Your task to perform on an android device: empty trash in google photos Image 0: 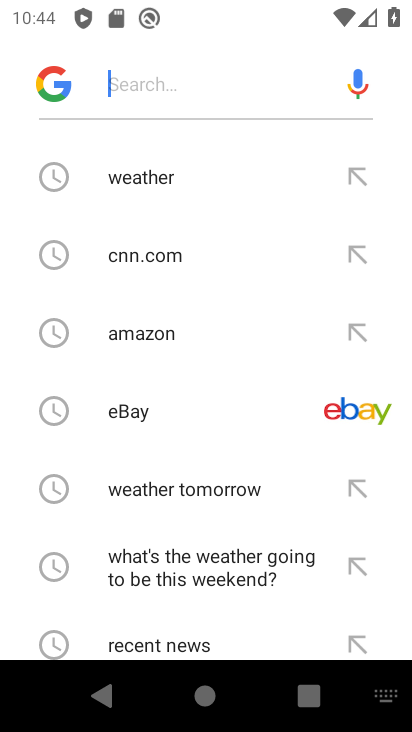
Step 0: press home button
Your task to perform on an android device: empty trash in google photos Image 1: 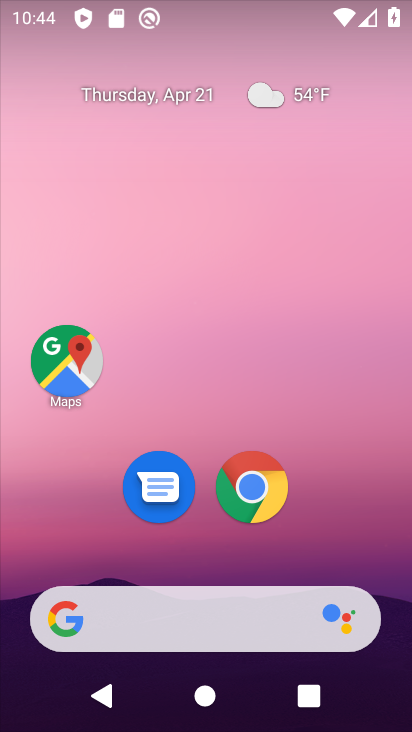
Step 1: drag from (367, 490) to (348, 146)
Your task to perform on an android device: empty trash in google photos Image 2: 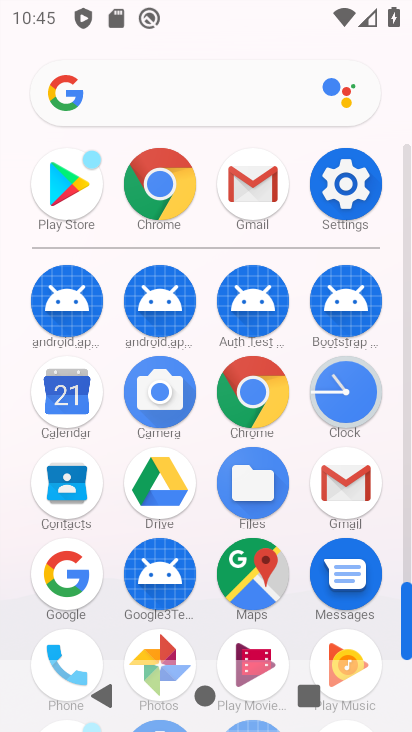
Step 2: drag from (210, 538) to (190, 201)
Your task to perform on an android device: empty trash in google photos Image 3: 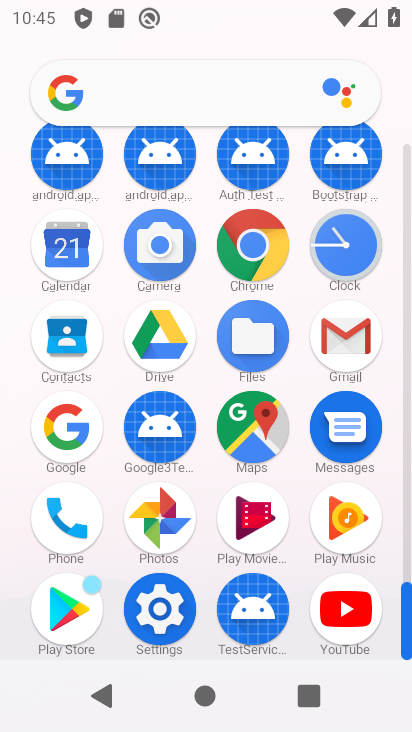
Step 3: click (168, 506)
Your task to perform on an android device: empty trash in google photos Image 4: 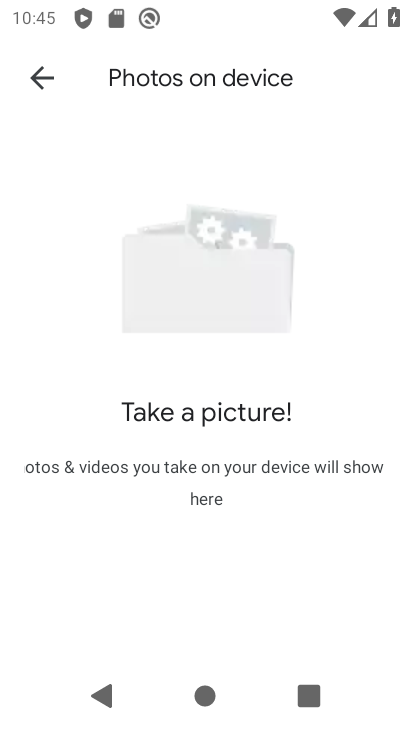
Step 4: click (35, 70)
Your task to perform on an android device: empty trash in google photos Image 5: 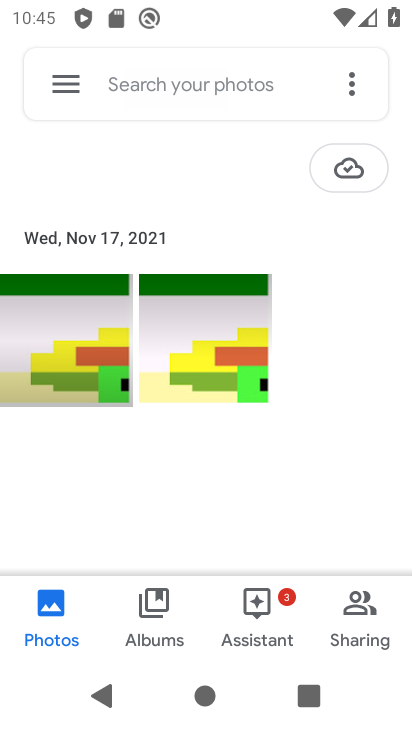
Step 5: click (71, 83)
Your task to perform on an android device: empty trash in google photos Image 6: 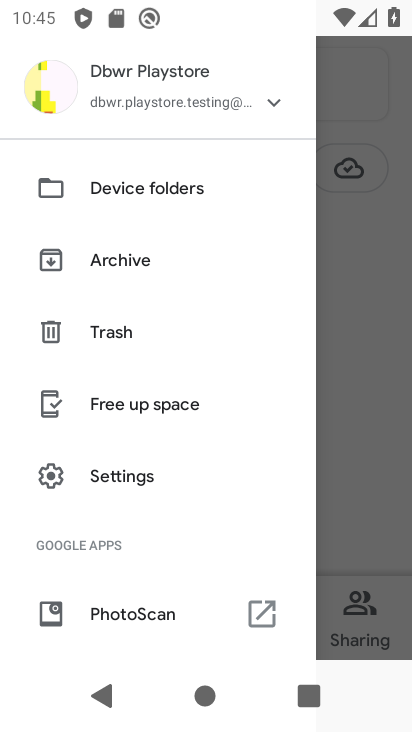
Step 6: click (133, 338)
Your task to perform on an android device: empty trash in google photos Image 7: 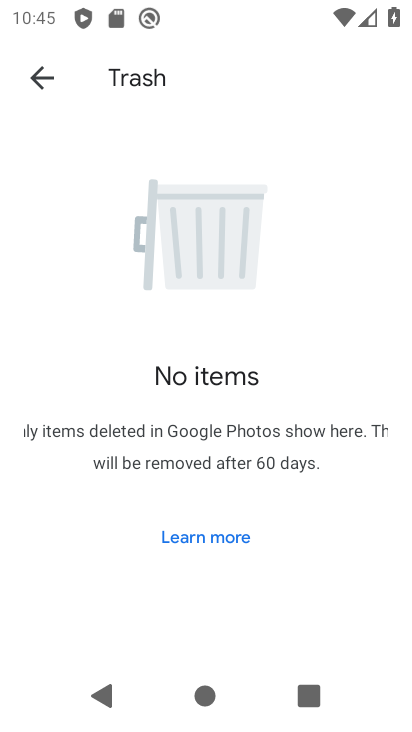
Step 7: task complete